Your task to perform on an android device: What's on my calendar today? Image 0: 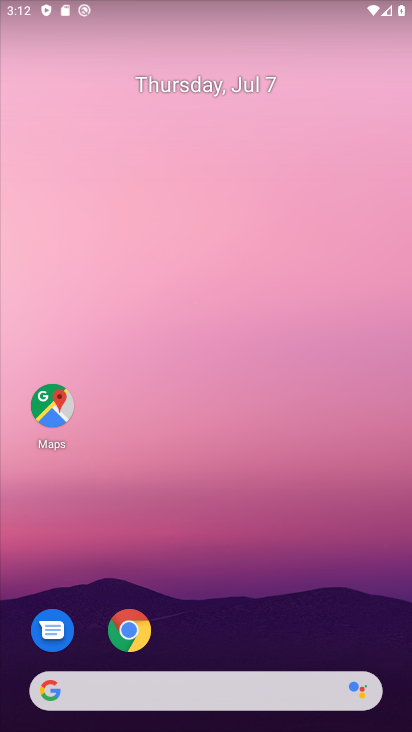
Step 0: drag from (363, 611) to (366, 189)
Your task to perform on an android device: What's on my calendar today? Image 1: 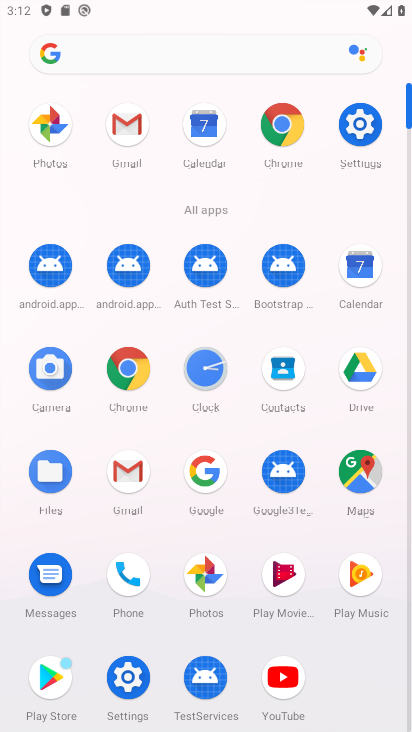
Step 1: click (357, 270)
Your task to perform on an android device: What's on my calendar today? Image 2: 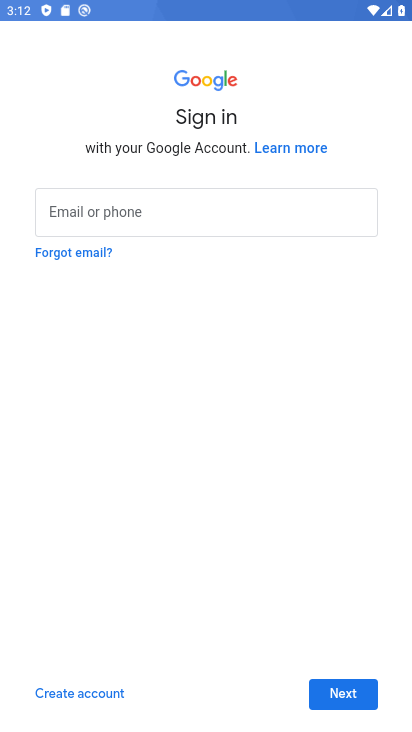
Step 2: task complete